Your task to perform on an android device: remove spam from my inbox in the gmail app Image 0: 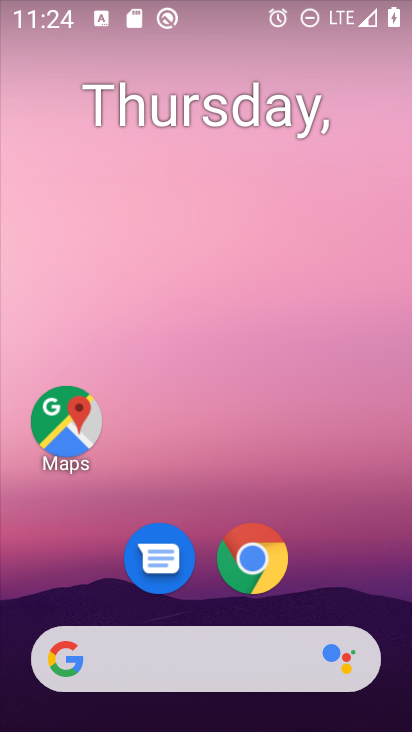
Step 0: drag from (398, 644) to (318, 158)
Your task to perform on an android device: remove spam from my inbox in the gmail app Image 1: 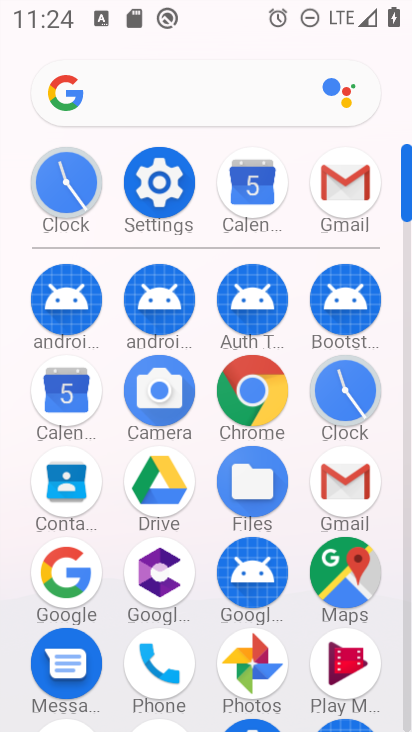
Step 1: click (411, 696)
Your task to perform on an android device: remove spam from my inbox in the gmail app Image 2: 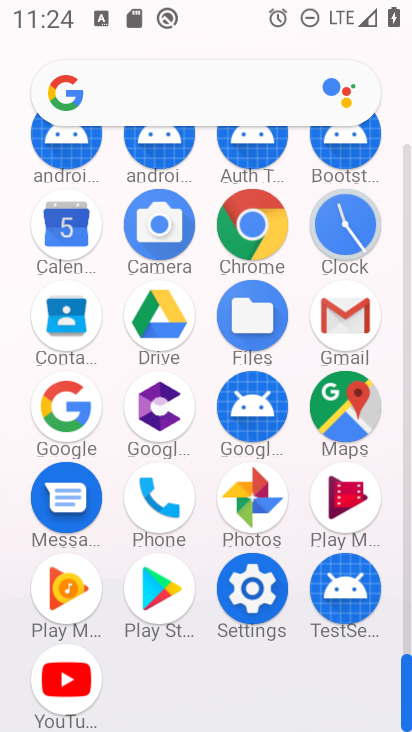
Step 2: click (345, 318)
Your task to perform on an android device: remove spam from my inbox in the gmail app Image 3: 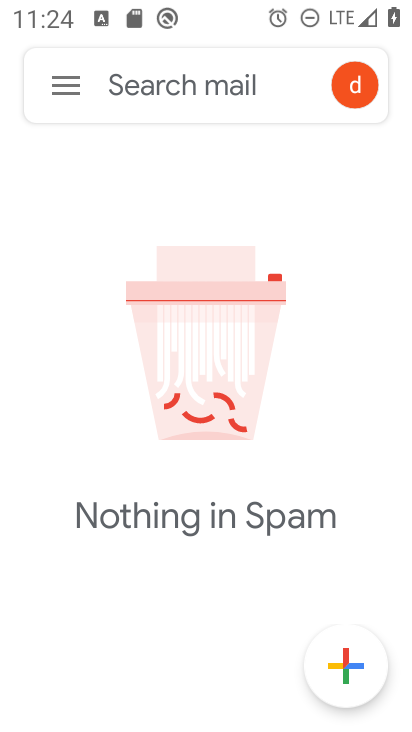
Step 3: click (64, 83)
Your task to perform on an android device: remove spam from my inbox in the gmail app Image 4: 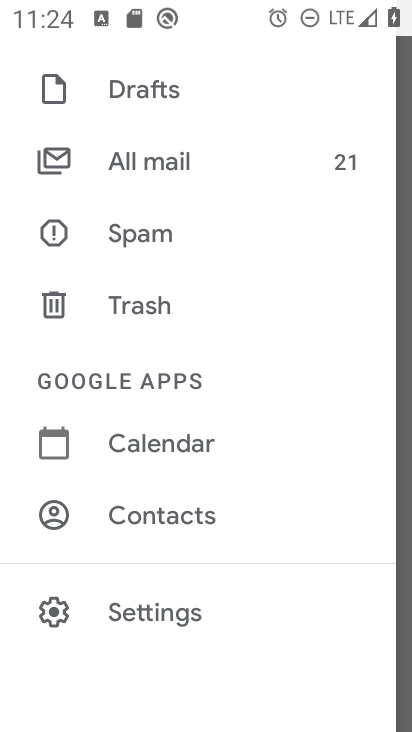
Step 4: click (145, 233)
Your task to perform on an android device: remove spam from my inbox in the gmail app Image 5: 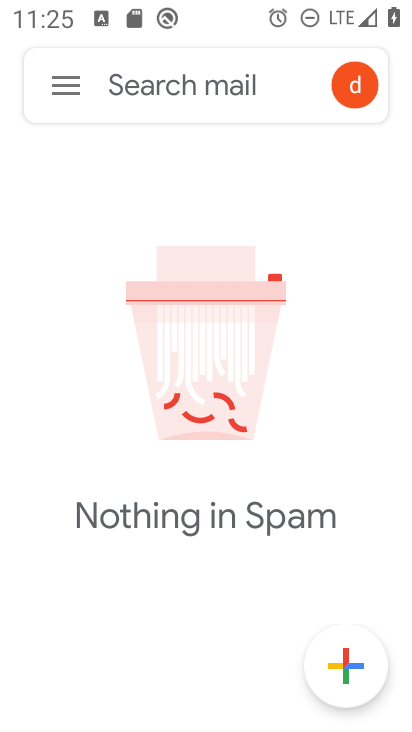
Step 5: task complete